Your task to perform on an android device: Open wifi settings Image 0: 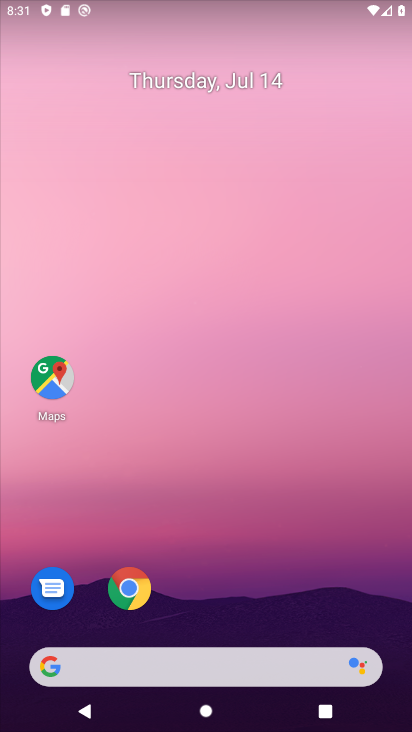
Step 0: drag from (226, 608) to (258, 104)
Your task to perform on an android device: Open wifi settings Image 1: 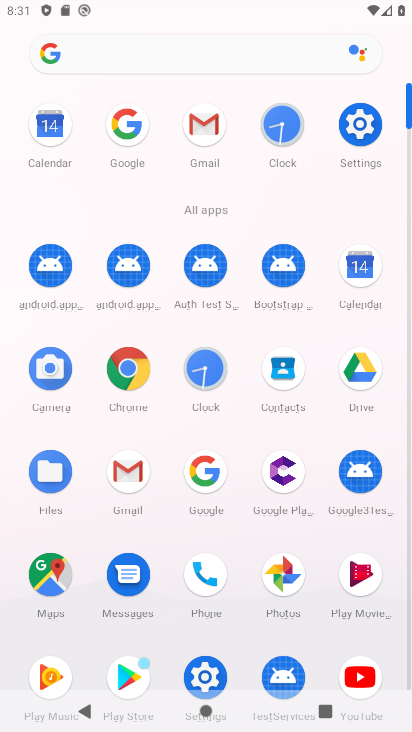
Step 1: click (360, 123)
Your task to perform on an android device: Open wifi settings Image 2: 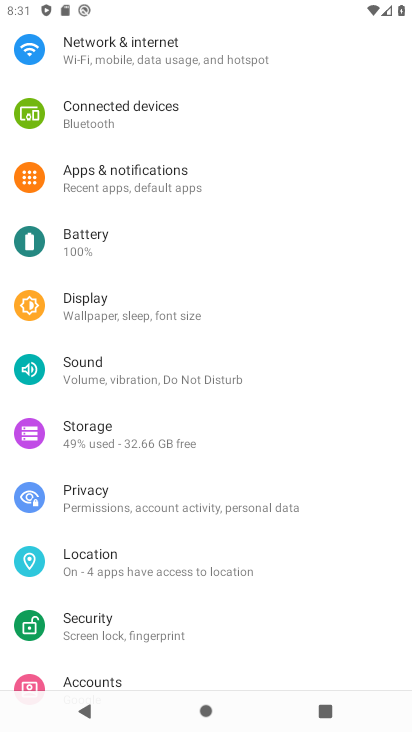
Step 2: drag from (119, 140) to (121, 254)
Your task to perform on an android device: Open wifi settings Image 3: 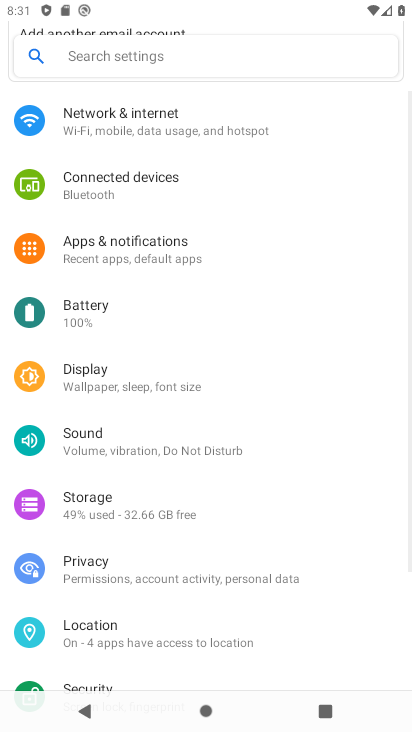
Step 3: click (107, 123)
Your task to perform on an android device: Open wifi settings Image 4: 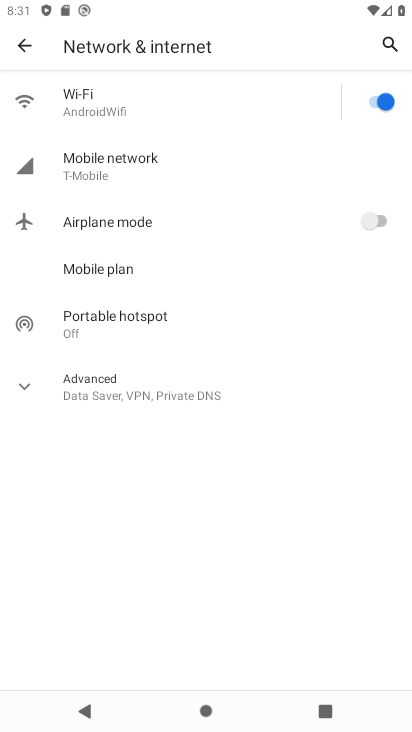
Step 4: click (143, 101)
Your task to perform on an android device: Open wifi settings Image 5: 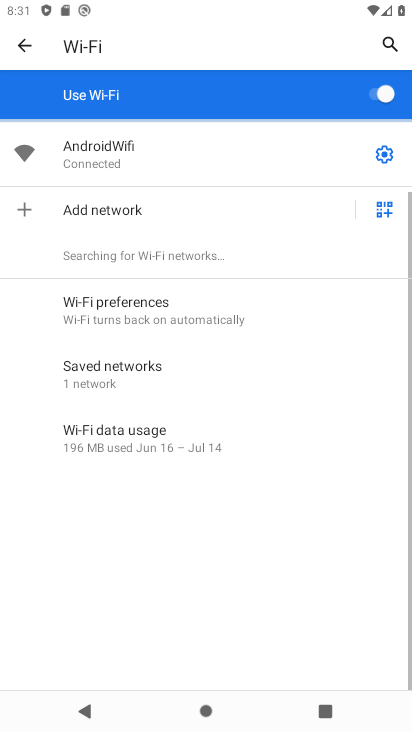
Step 5: click (214, 156)
Your task to perform on an android device: Open wifi settings Image 6: 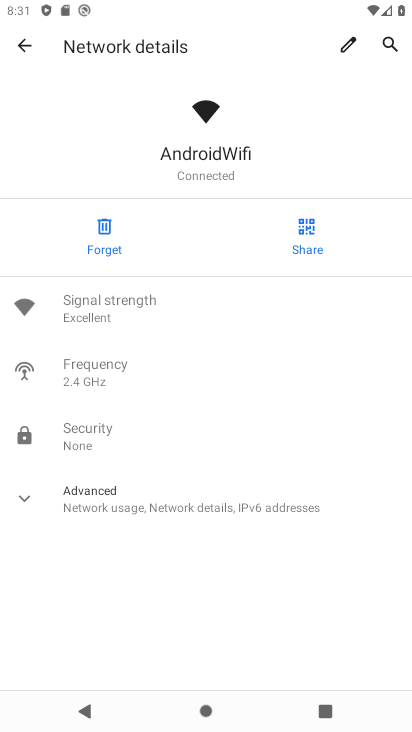
Step 6: task complete